Your task to perform on an android device: Go to Reddit.com Image 0: 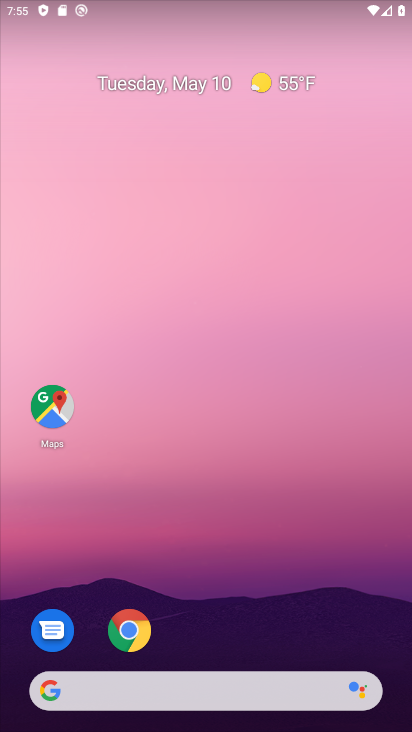
Step 0: drag from (217, 563) to (206, 0)
Your task to perform on an android device: Go to Reddit.com Image 1: 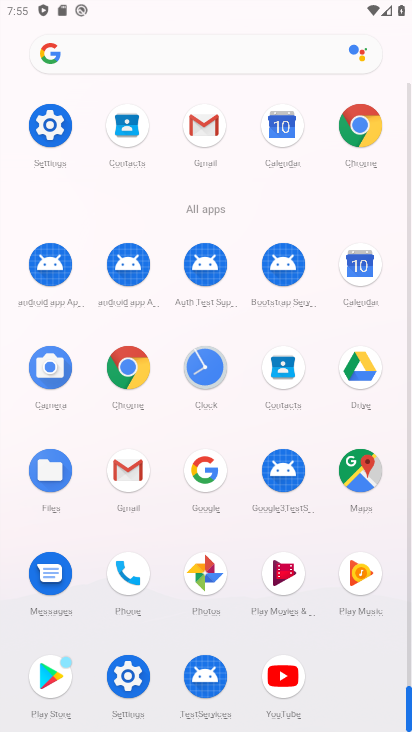
Step 1: drag from (7, 594) to (3, 233)
Your task to perform on an android device: Go to Reddit.com Image 2: 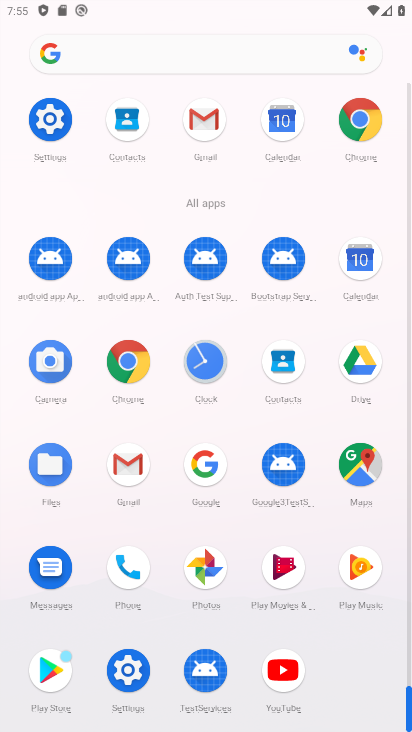
Step 2: click (124, 356)
Your task to perform on an android device: Go to Reddit.com Image 3: 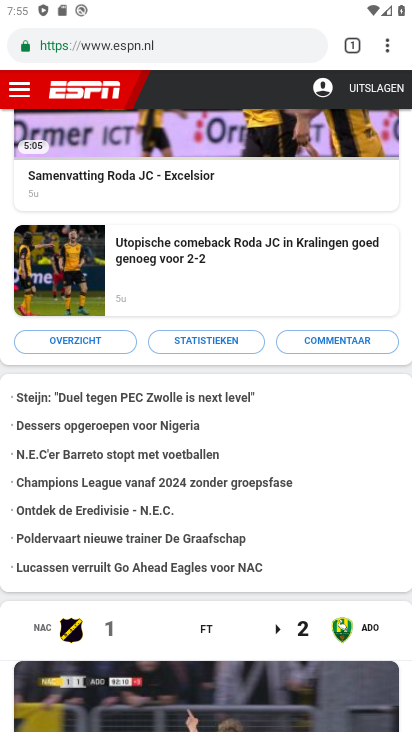
Step 3: click (182, 38)
Your task to perform on an android device: Go to Reddit.com Image 4: 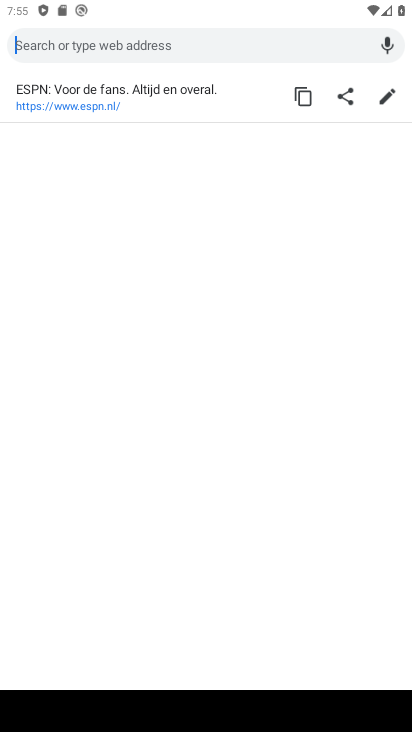
Step 4: type "Reddit.com"
Your task to perform on an android device: Go to Reddit.com Image 5: 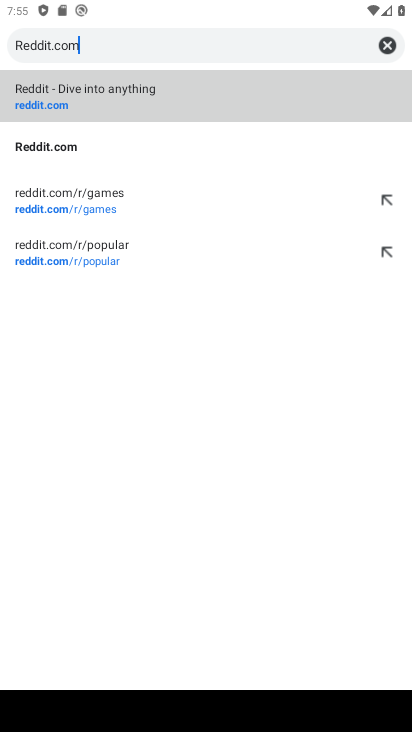
Step 5: type ""
Your task to perform on an android device: Go to Reddit.com Image 6: 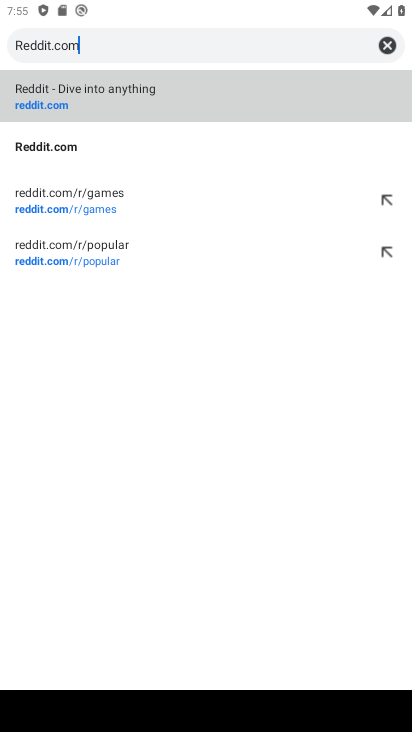
Step 6: click (129, 96)
Your task to perform on an android device: Go to Reddit.com Image 7: 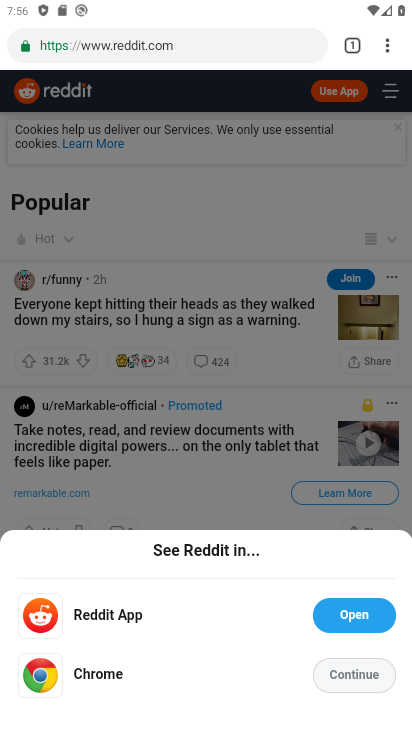
Step 7: task complete